Your task to perform on an android device: Do I have any events this weekend? Image 0: 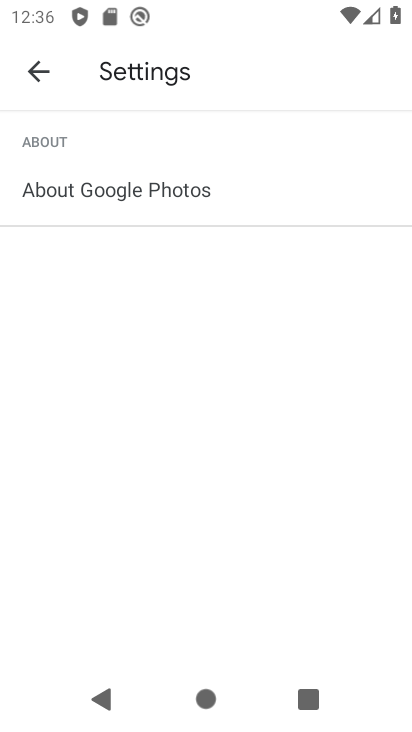
Step 0: press home button
Your task to perform on an android device: Do I have any events this weekend? Image 1: 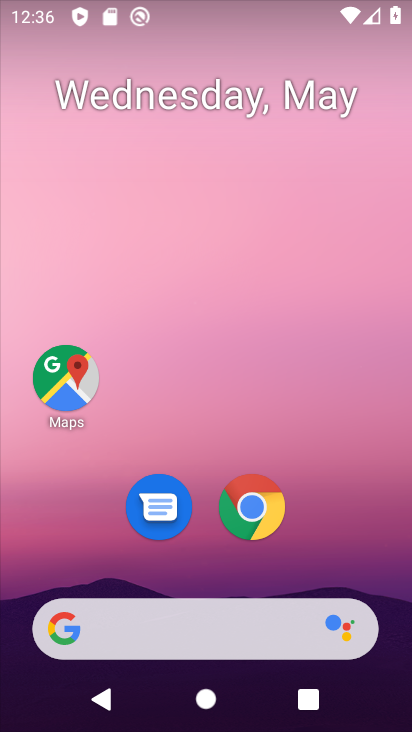
Step 1: drag from (389, 596) to (295, 197)
Your task to perform on an android device: Do I have any events this weekend? Image 2: 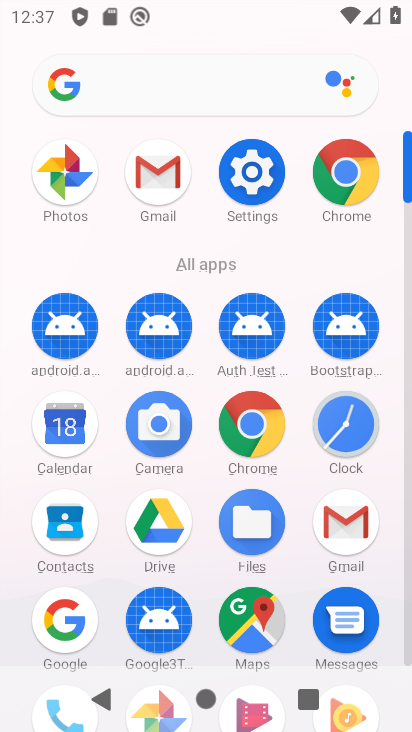
Step 2: click (411, 649)
Your task to perform on an android device: Do I have any events this weekend? Image 3: 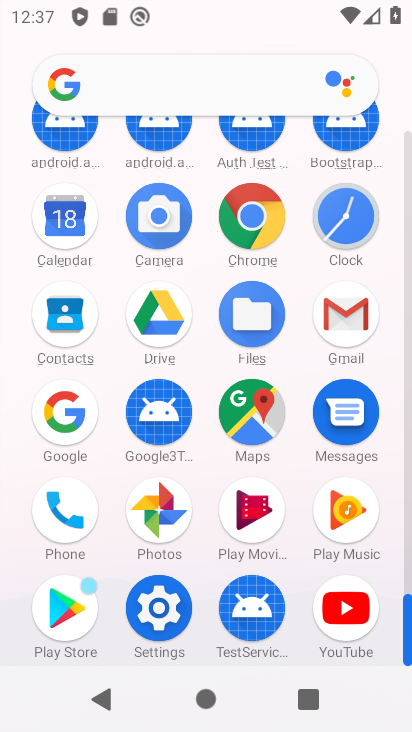
Step 3: click (54, 219)
Your task to perform on an android device: Do I have any events this weekend? Image 4: 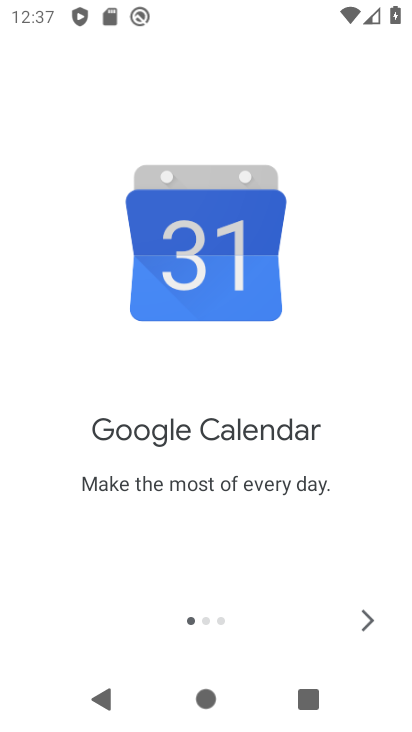
Step 4: click (367, 621)
Your task to perform on an android device: Do I have any events this weekend? Image 5: 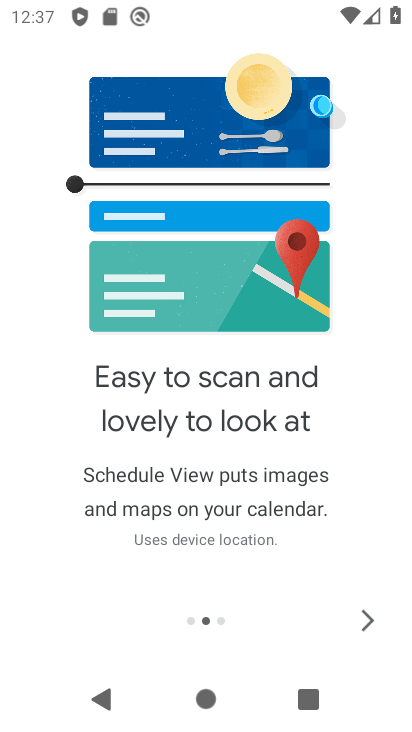
Step 5: click (367, 621)
Your task to perform on an android device: Do I have any events this weekend? Image 6: 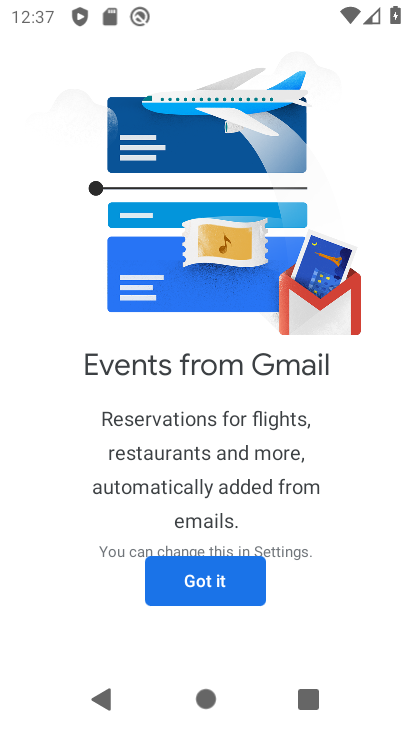
Step 6: click (203, 582)
Your task to perform on an android device: Do I have any events this weekend? Image 7: 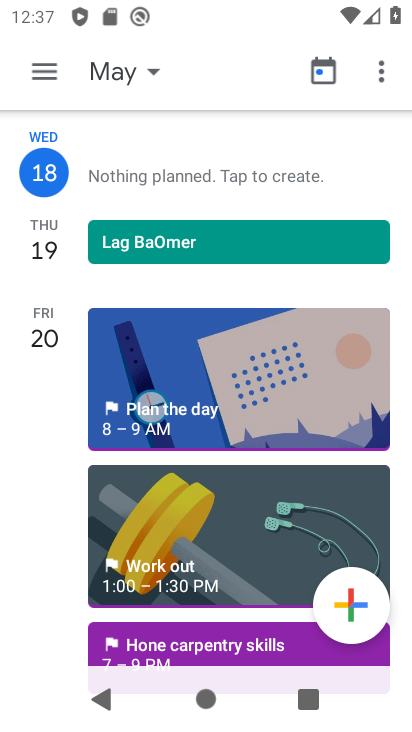
Step 7: click (42, 72)
Your task to perform on an android device: Do I have any events this weekend? Image 8: 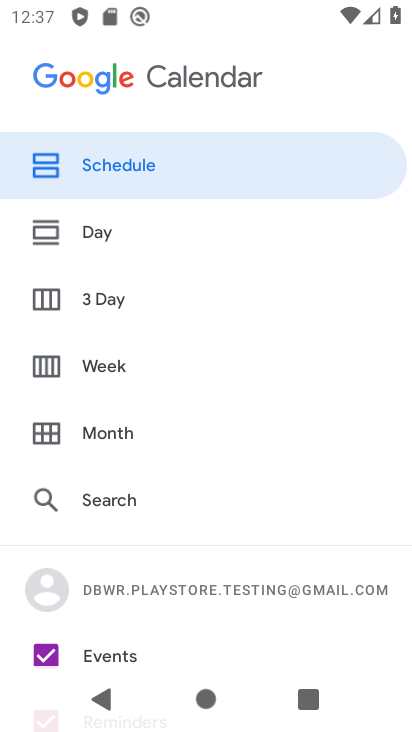
Step 8: click (115, 379)
Your task to perform on an android device: Do I have any events this weekend? Image 9: 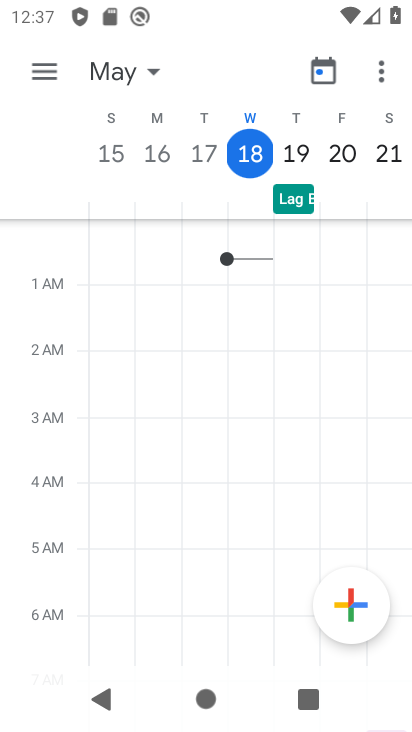
Step 9: task complete